Your task to perform on an android device: Open Google Chrome and open the bookmarks view Image 0: 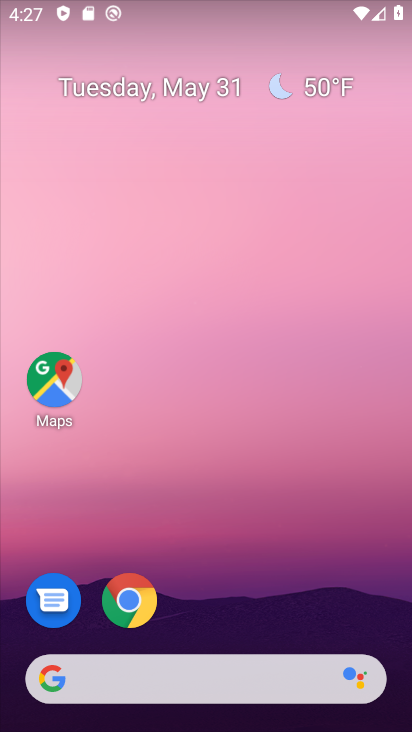
Step 0: click (129, 600)
Your task to perform on an android device: Open Google Chrome and open the bookmarks view Image 1: 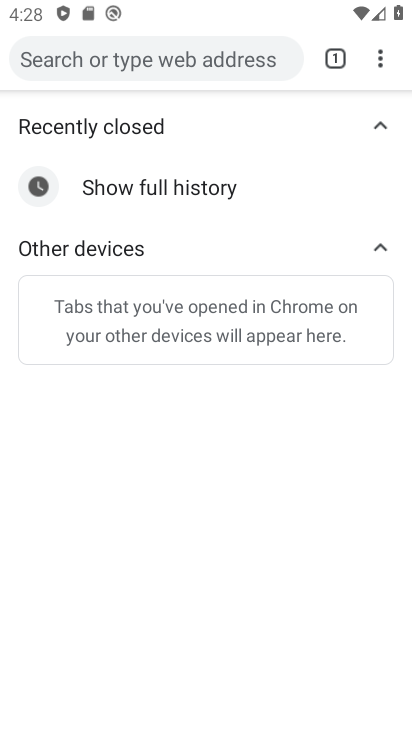
Step 1: click (380, 59)
Your task to perform on an android device: Open Google Chrome and open the bookmarks view Image 2: 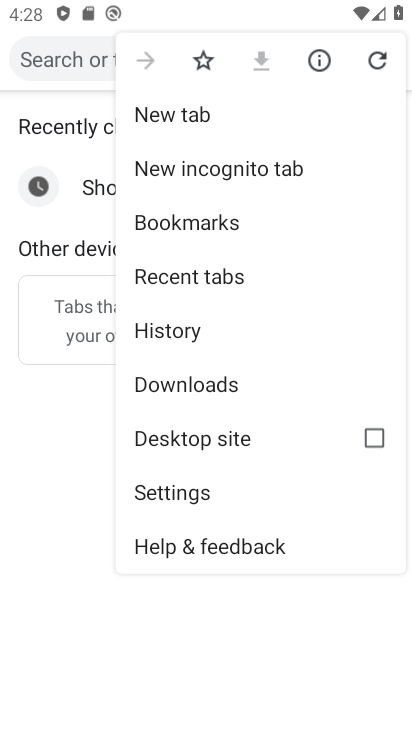
Step 2: click (215, 226)
Your task to perform on an android device: Open Google Chrome and open the bookmarks view Image 3: 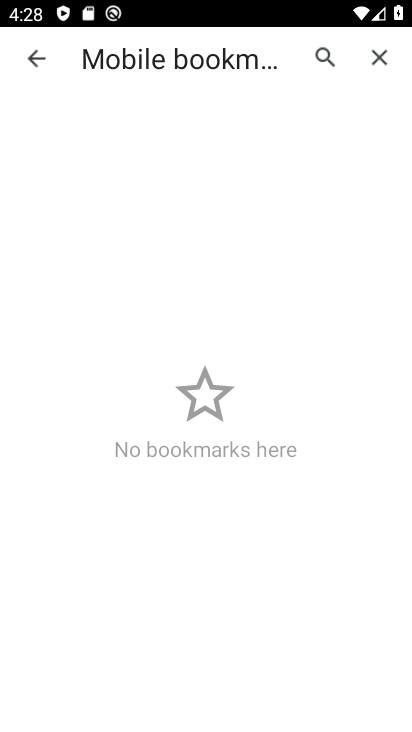
Step 3: task complete